Your task to perform on an android device: check data usage Image 0: 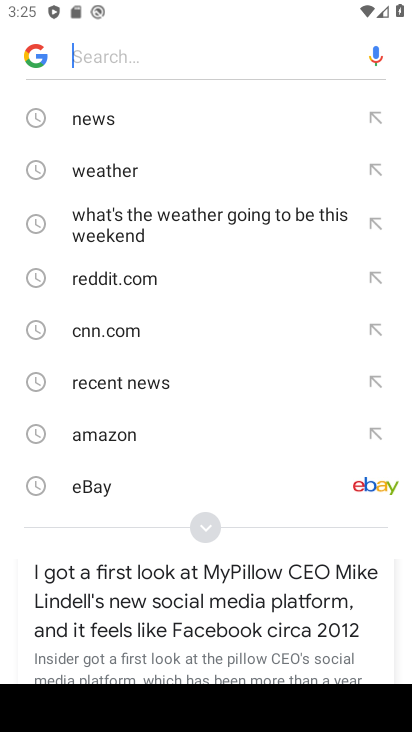
Step 0: press back button
Your task to perform on an android device: check data usage Image 1: 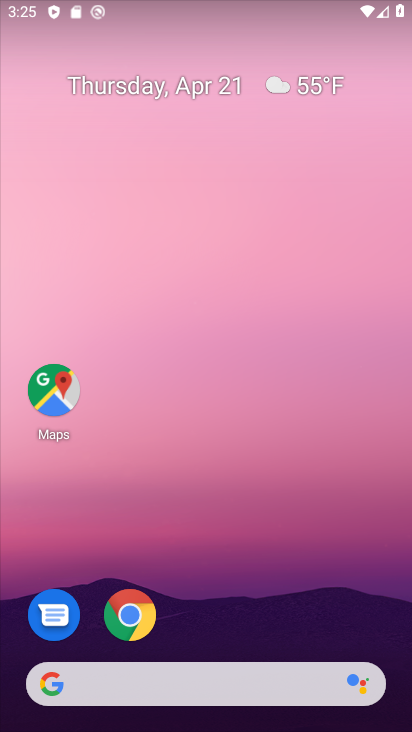
Step 1: drag from (216, 206) to (213, 68)
Your task to perform on an android device: check data usage Image 2: 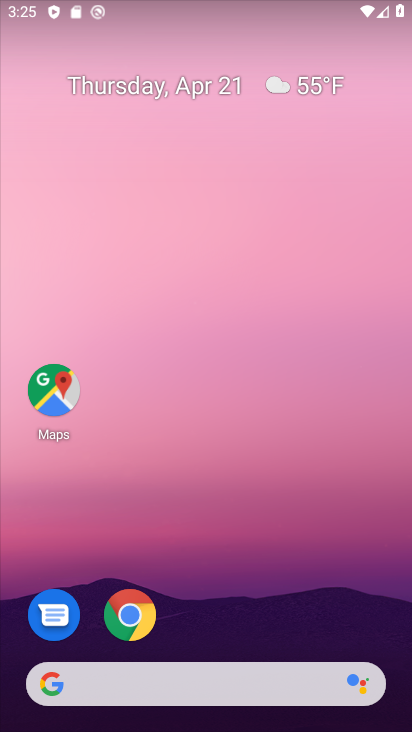
Step 2: drag from (280, 595) to (147, 15)
Your task to perform on an android device: check data usage Image 3: 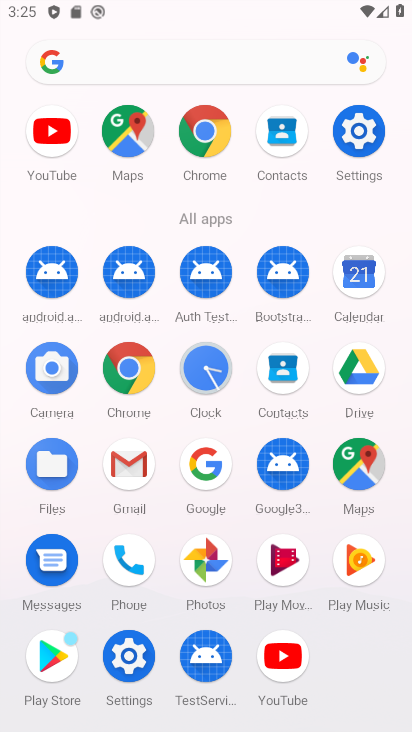
Step 3: click (357, 130)
Your task to perform on an android device: check data usage Image 4: 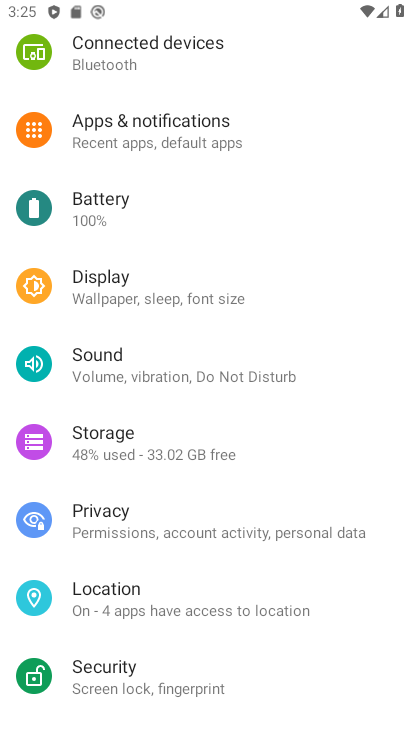
Step 4: drag from (267, 184) to (235, 546)
Your task to perform on an android device: check data usage Image 5: 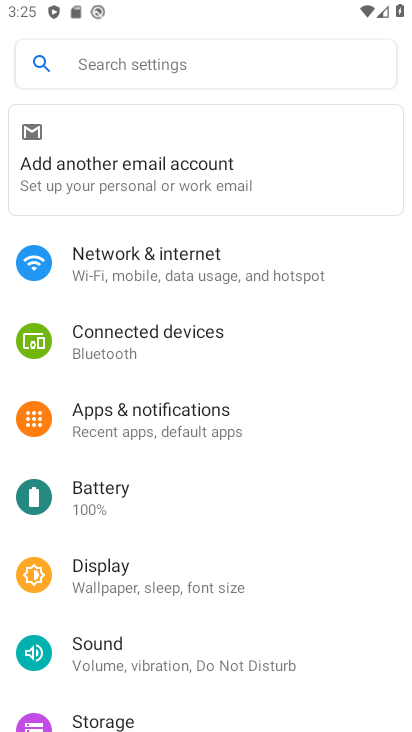
Step 5: click (210, 269)
Your task to perform on an android device: check data usage Image 6: 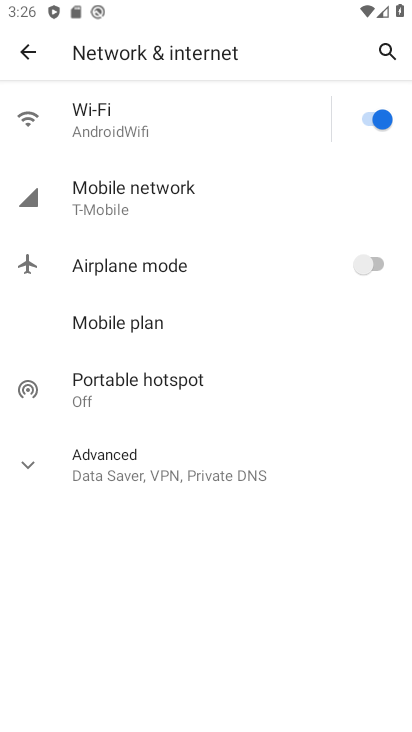
Step 6: click (172, 198)
Your task to perform on an android device: check data usage Image 7: 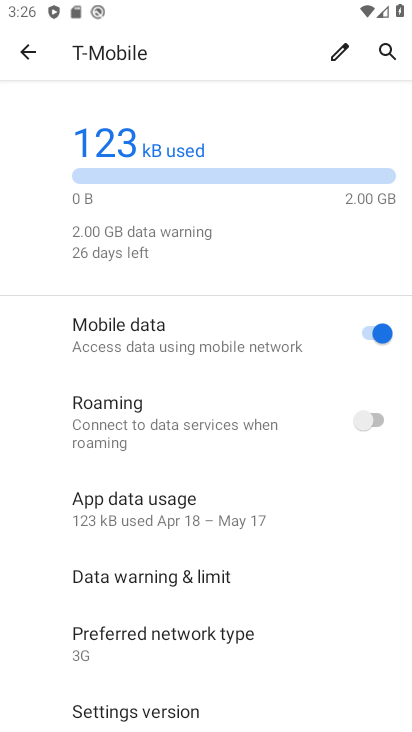
Step 7: task complete